Your task to perform on an android device: turn off sleep mode Image 0: 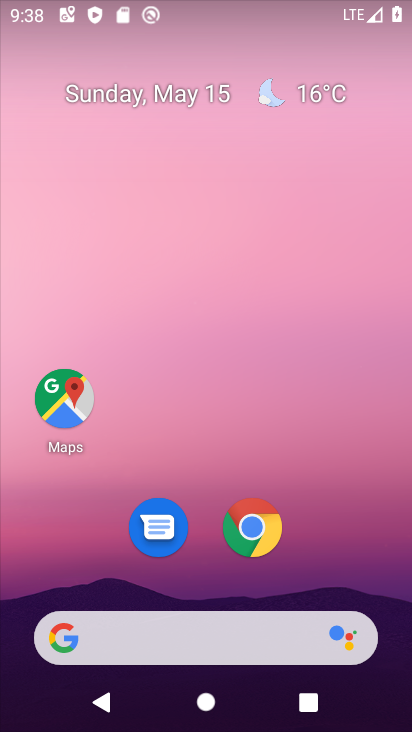
Step 0: drag from (348, 576) to (363, 2)
Your task to perform on an android device: turn off sleep mode Image 1: 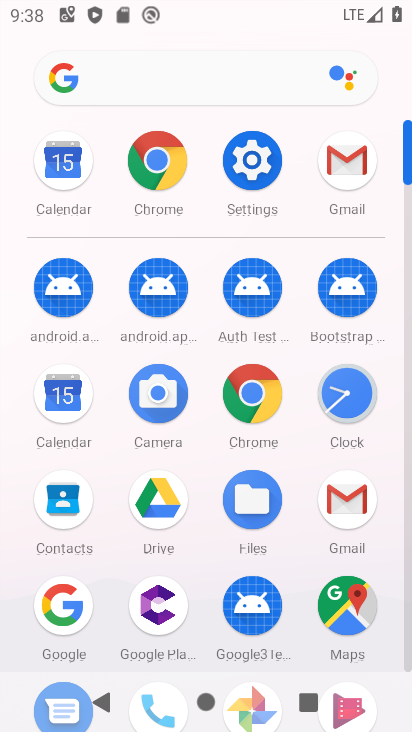
Step 1: click (245, 164)
Your task to perform on an android device: turn off sleep mode Image 2: 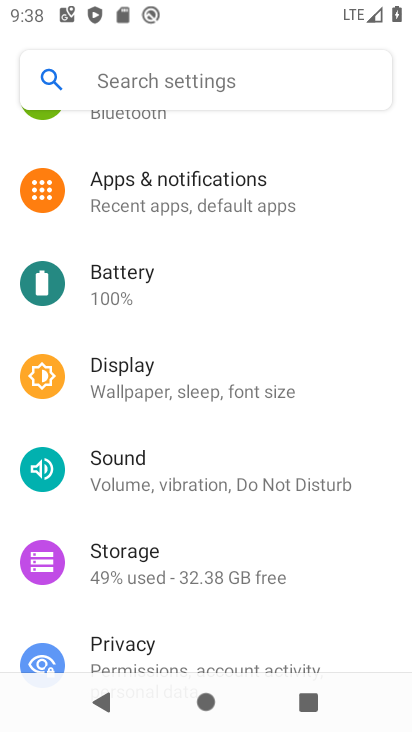
Step 2: click (101, 375)
Your task to perform on an android device: turn off sleep mode Image 3: 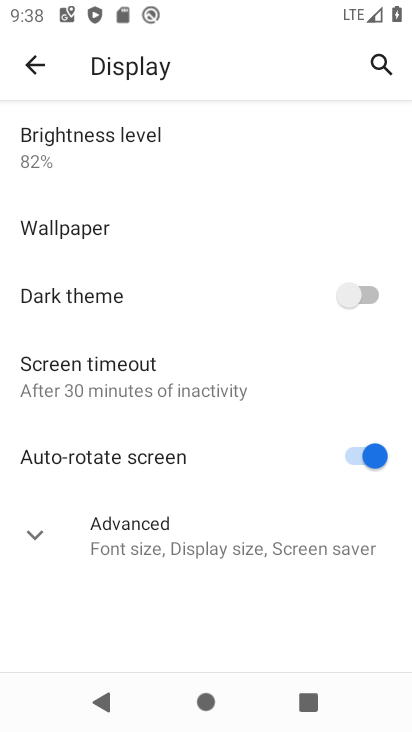
Step 3: click (43, 540)
Your task to perform on an android device: turn off sleep mode Image 4: 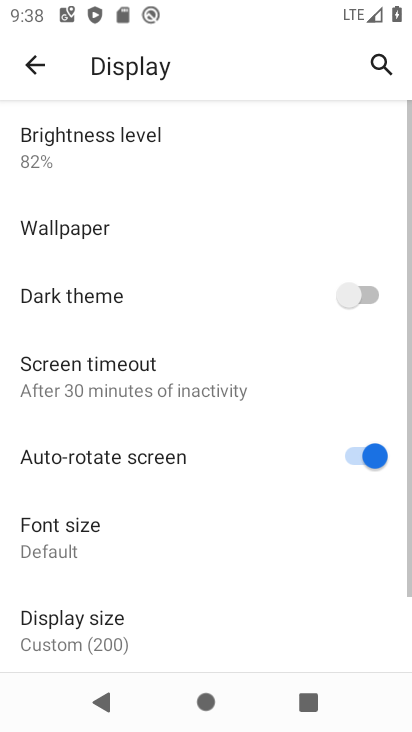
Step 4: task complete